Your task to perform on an android device: Search for razer deathadder on newegg.com, select the first entry, and add it to the cart. Image 0: 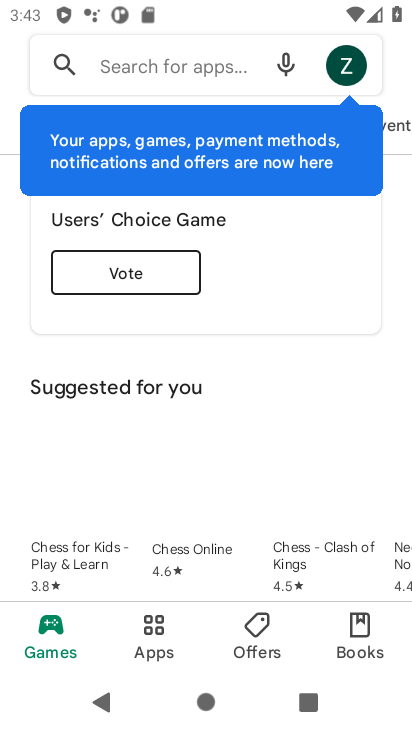
Step 0: press home button
Your task to perform on an android device: Search for razer deathadder on newegg.com, select the first entry, and add it to the cart. Image 1: 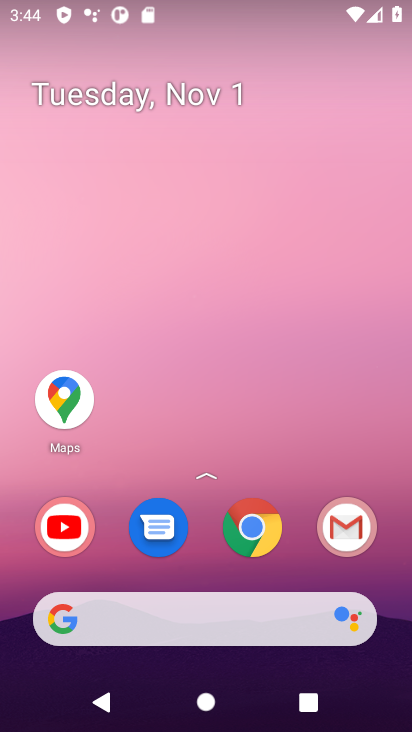
Step 1: click (246, 634)
Your task to perform on an android device: Search for razer deathadder on newegg.com, select the first entry, and add it to the cart. Image 2: 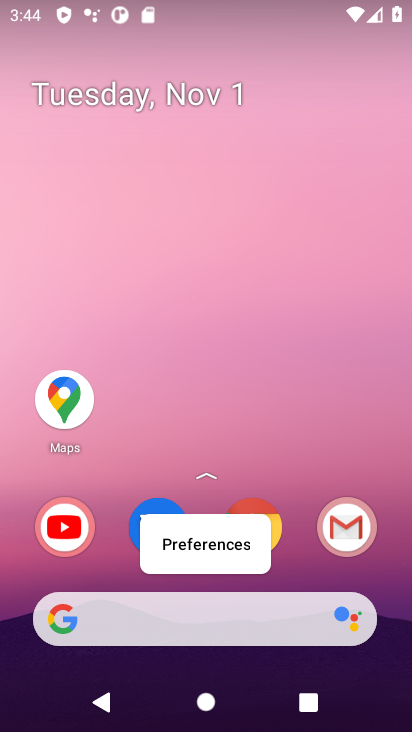
Step 2: click (245, 635)
Your task to perform on an android device: Search for razer deathadder on newegg.com, select the first entry, and add it to the cart. Image 3: 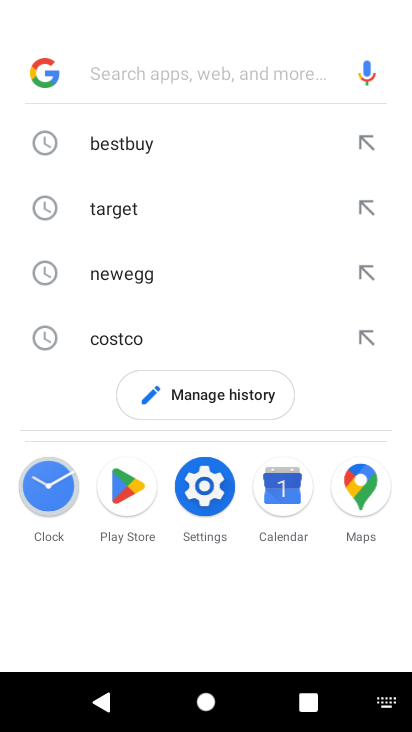
Step 3: click (142, 276)
Your task to perform on an android device: Search for razer deathadder on newegg.com, select the first entry, and add it to the cart. Image 4: 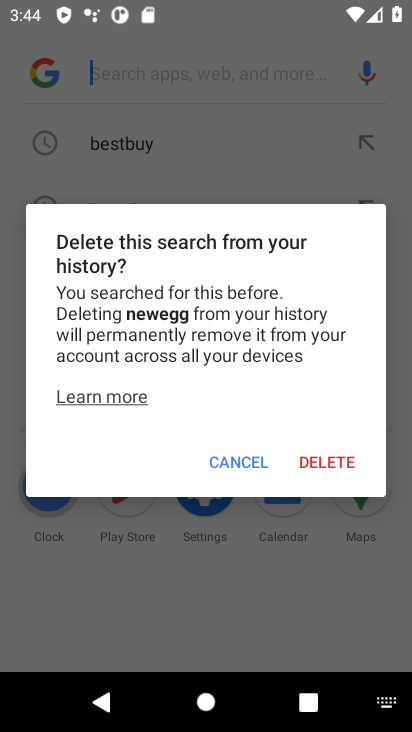
Step 4: click (244, 458)
Your task to perform on an android device: Search for razer deathadder on newegg.com, select the first entry, and add it to the cart. Image 5: 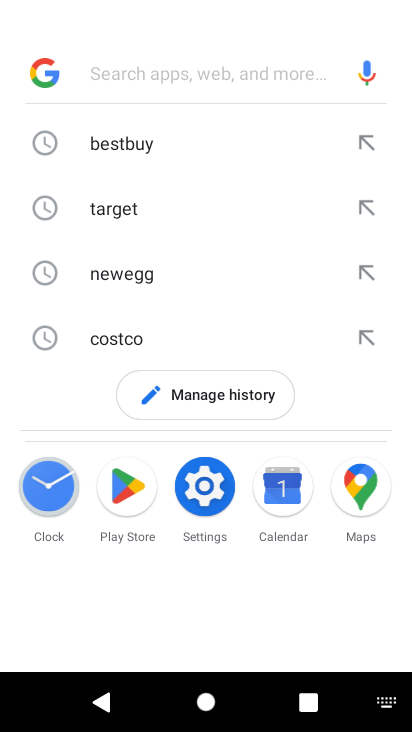
Step 5: click (116, 281)
Your task to perform on an android device: Search for razer deathadder on newegg.com, select the first entry, and add it to the cart. Image 6: 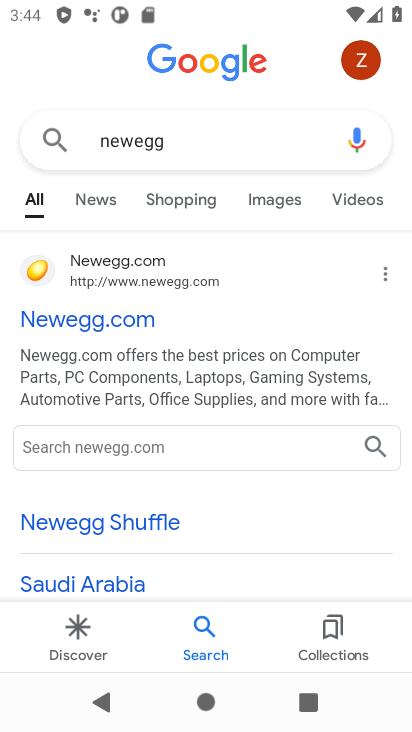
Step 6: click (115, 313)
Your task to perform on an android device: Search for razer deathadder on newegg.com, select the first entry, and add it to the cart. Image 7: 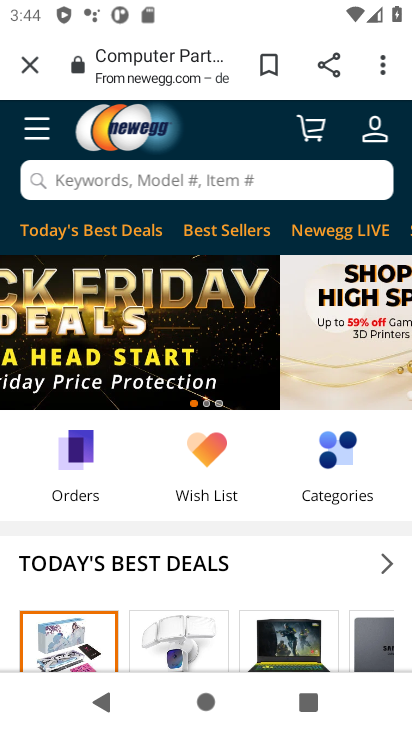
Step 7: click (162, 181)
Your task to perform on an android device: Search for razer deathadder on newegg.com, select the first entry, and add it to the cart. Image 8: 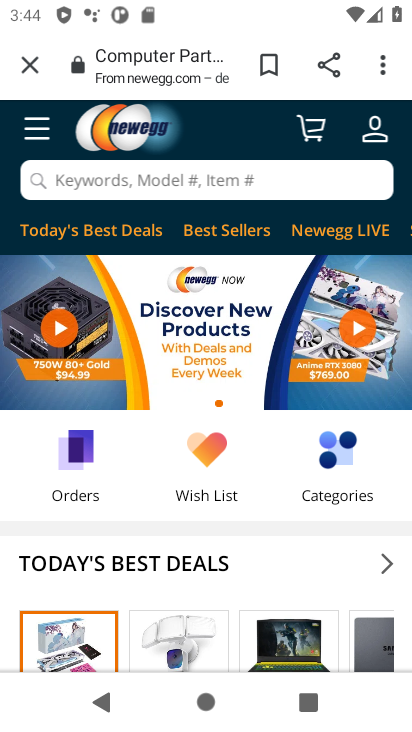
Step 8: click (173, 175)
Your task to perform on an android device: Search for razer deathadder on newegg.com, select the first entry, and add it to the cart. Image 9: 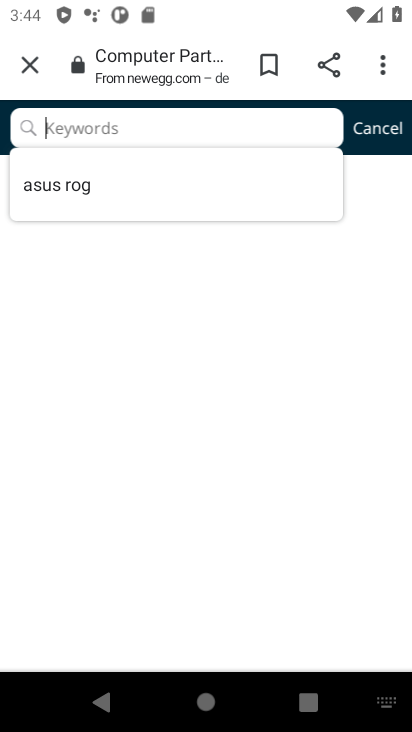
Step 9: type "razer deathadder"
Your task to perform on an android device: Search for razer deathadder on newegg.com, select the first entry, and add it to the cart. Image 10: 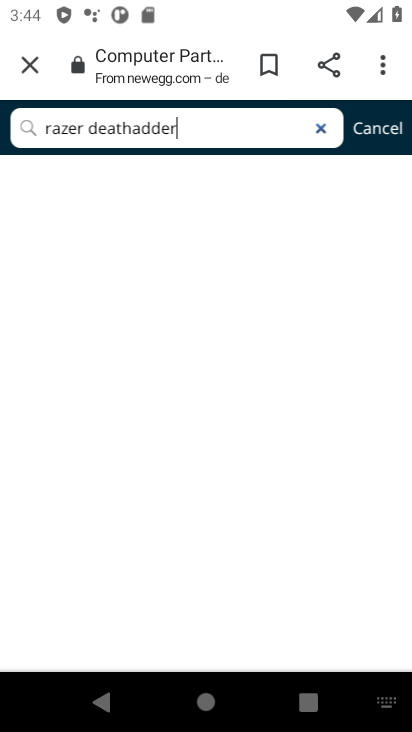
Step 10: type ""
Your task to perform on an android device: Search for razer deathadder on newegg.com, select the first entry, and add it to the cart. Image 11: 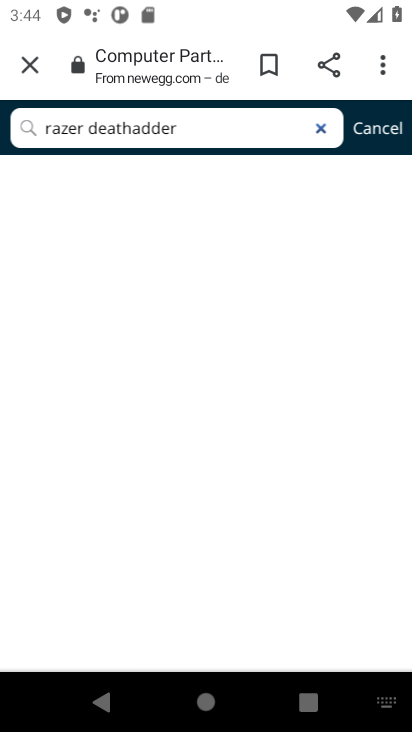
Step 11: press enter
Your task to perform on an android device: Search for razer deathadder on newegg.com, select the first entry, and add it to the cart. Image 12: 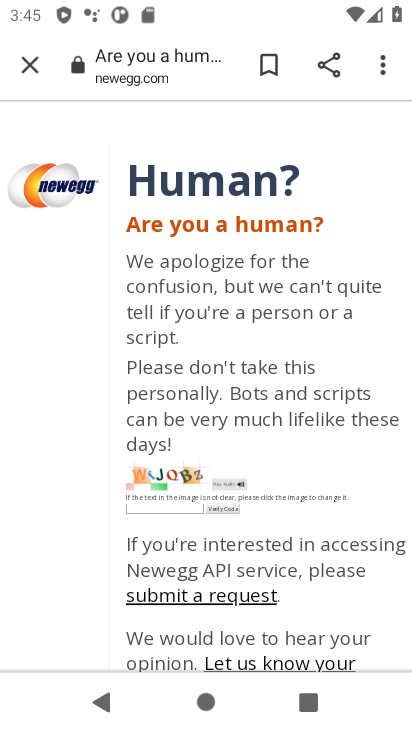
Step 12: task complete